Your task to perform on an android device: See recent photos Image 0: 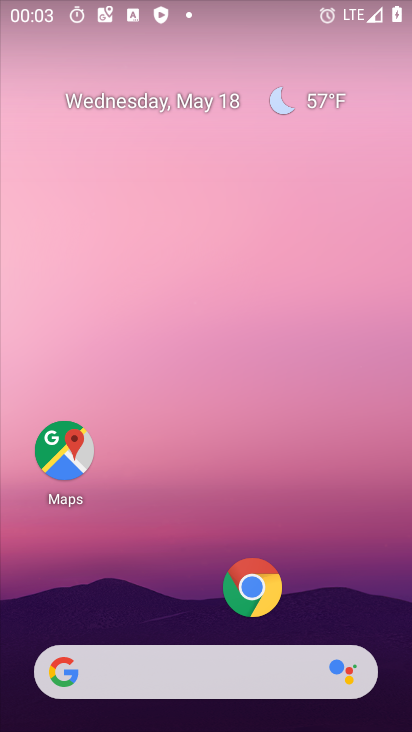
Step 0: drag from (85, 332) to (196, 123)
Your task to perform on an android device: See recent photos Image 1: 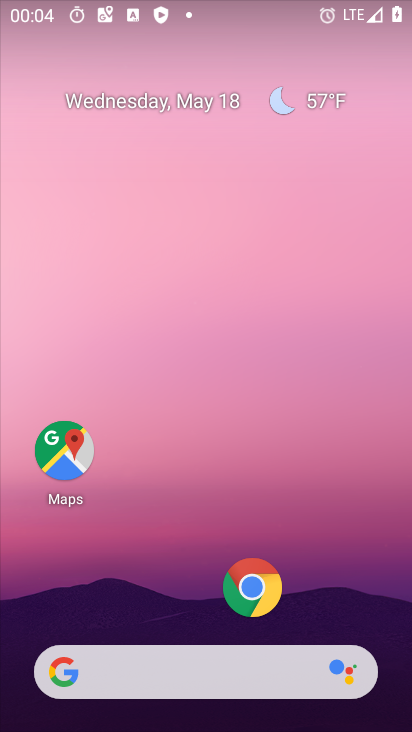
Step 1: click (268, 94)
Your task to perform on an android device: See recent photos Image 2: 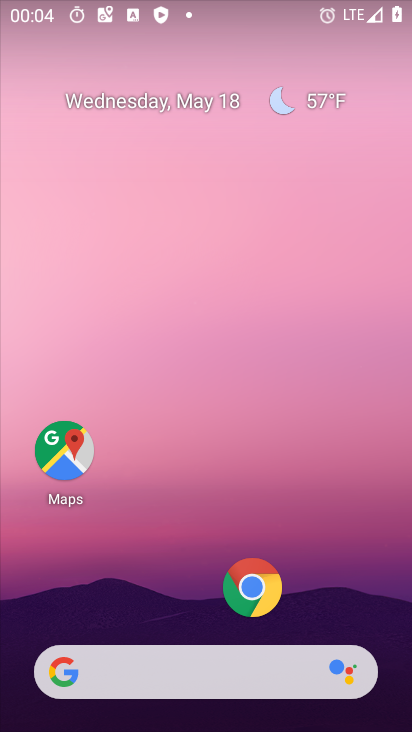
Step 2: drag from (106, 459) to (296, 76)
Your task to perform on an android device: See recent photos Image 3: 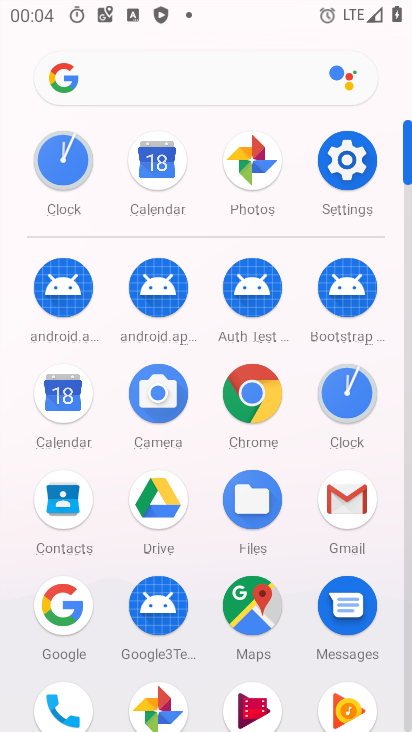
Step 3: click (159, 729)
Your task to perform on an android device: See recent photos Image 4: 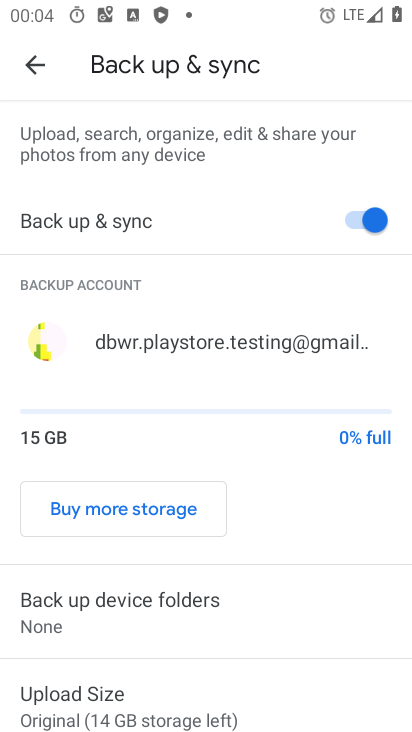
Step 4: click (35, 68)
Your task to perform on an android device: See recent photos Image 5: 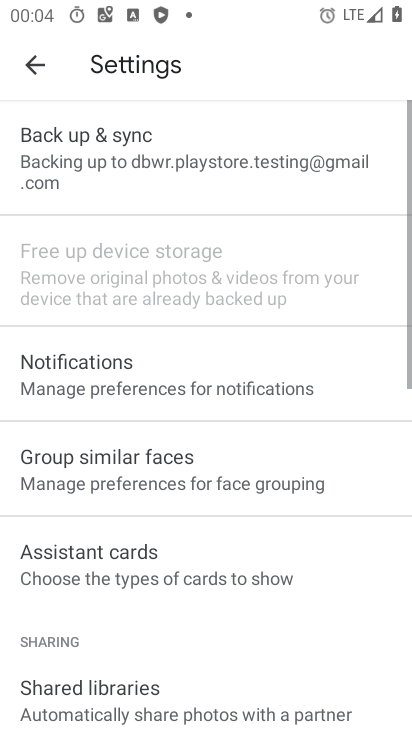
Step 5: task complete